Your task to perform on an android device: change alarm snooze length Image 0: 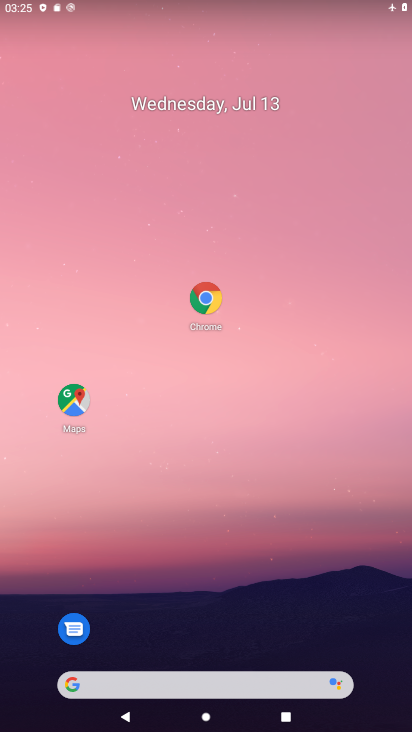
Step 0: drag from (159, 631) to (212, 227)
Your task to perform on an android device: change alarm snooze length Image 1: 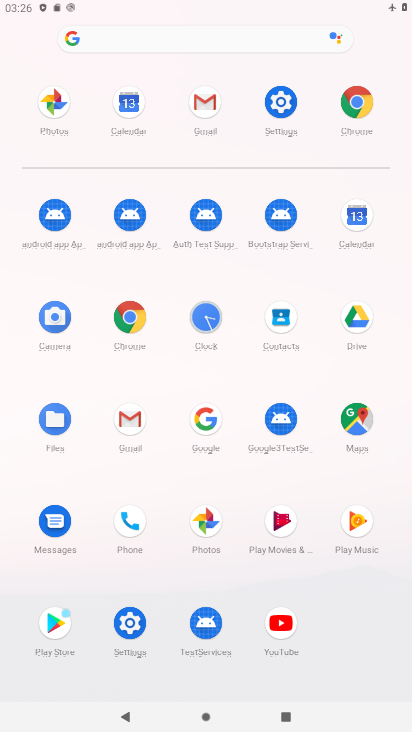
Step 1: click (208, 320)
Your task to perform on an android device: change alarm snooze length Image 2: 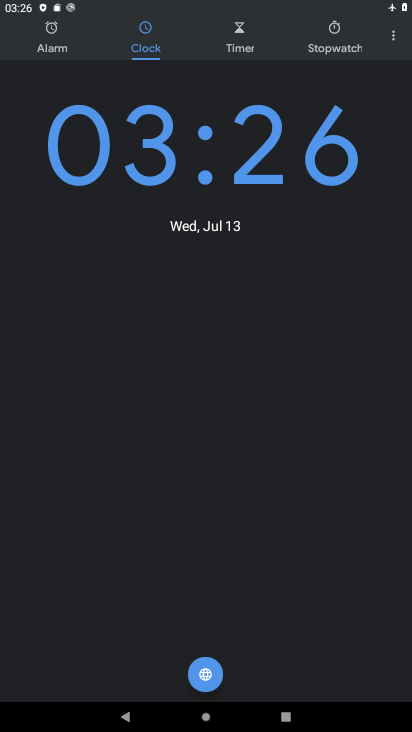
Step 2: click (396, 30)
Your task to perform on an android device: change alarm snooze length Image 3: 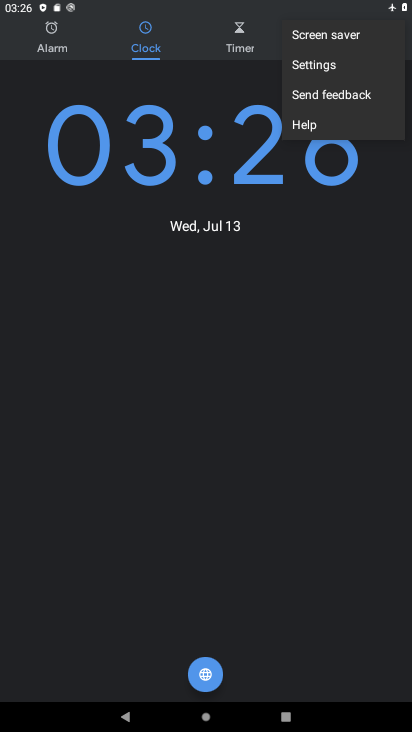
Step 3: click (304, 70)
Your task to perform on an android device: change alarm snooze length Image 4: 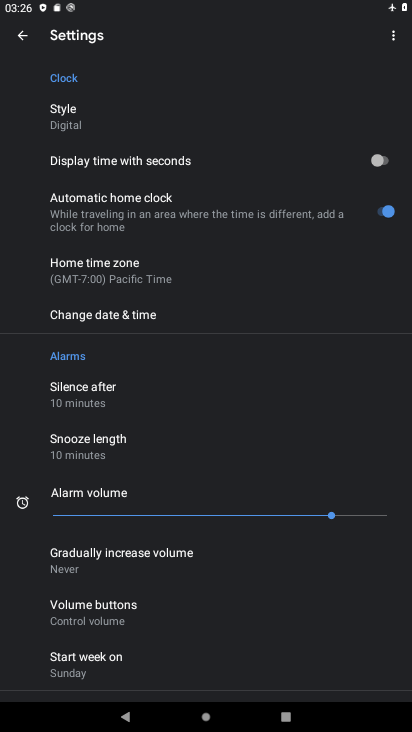
Step 4: click (91, 434)
Your task to perform on an android device: change alarm snooze length Image 5: 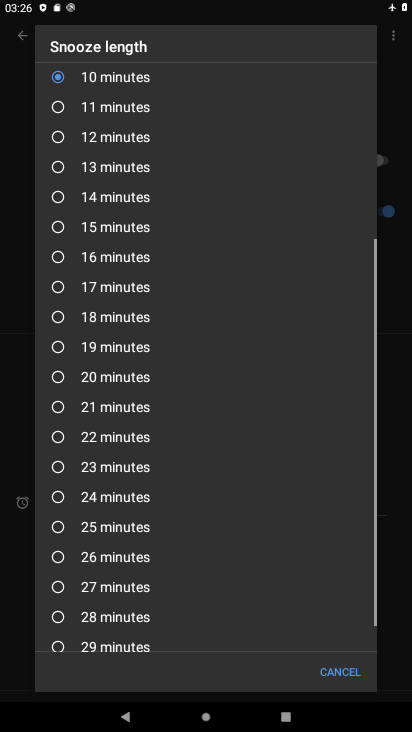
Step 5: drag from (140, 626) to (226, 140)
Your task to perform on an android device: change alarm snooze length Image 6: 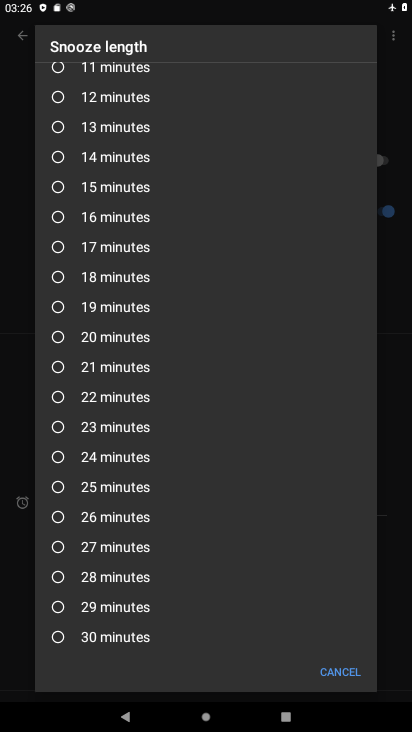
Step 6: click (97, 423)
Your task to perform on an android device: change alarm snooze length Image 7: 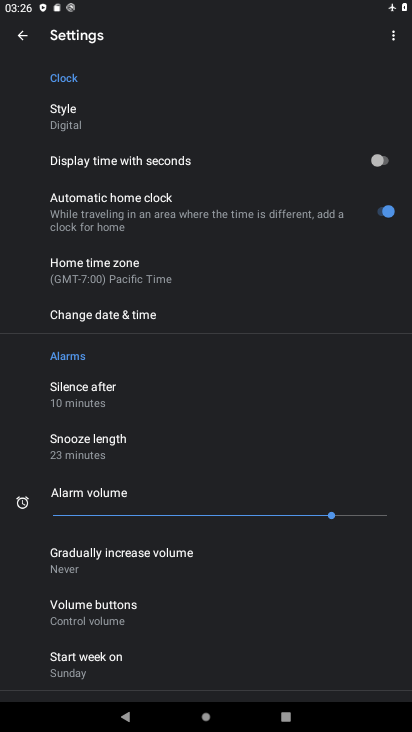
Step 7: task complete